Your task to perform on an android device: Empty the shopping cart on walmart.com. Search for "acer nitro" on walmart.com, select the first entry, add it to the cart, then select checkout. Image 0: 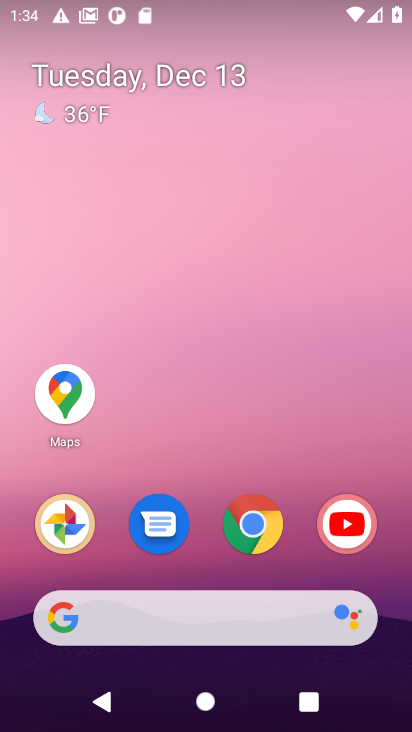
Step 0: click (256, 525)
Your task to perform on an android device: Empty the shopping cart on walmart.com. Search for "acer nitro" on walmart.com, select the first entry, add it to the cart, then select checkout. Image 1: 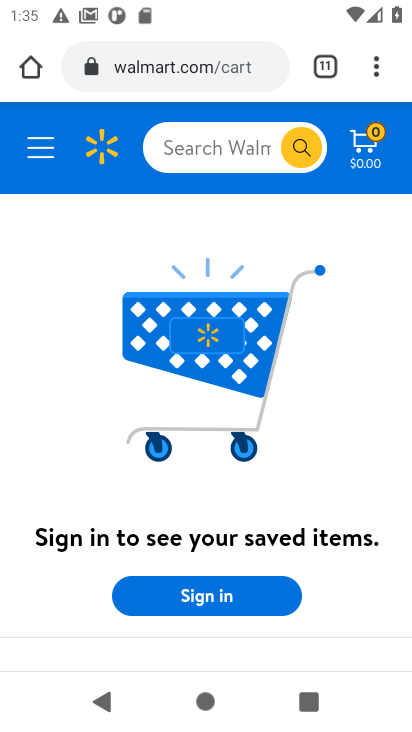
Step 1: click (191, 150)
Your task to perform on an android device: Empty the shopping cart on walmart.com. Search for "acer nitro" on walmart.com, select the first entry, add it to the cart, then select checkout. Image 2: 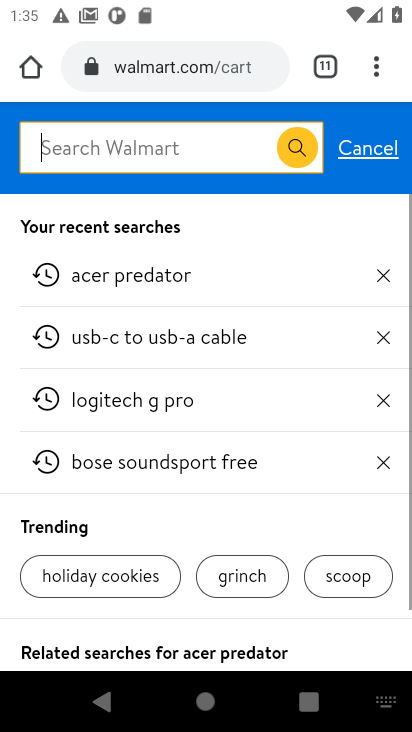
Step 2: type "acer nitro"
Your task to perform on an android device: Empty the shopping cart on walmart.com. Search for "acer nitro" on walmart.com, select the first entry, add it to the cart, then select checkout. Image 3: 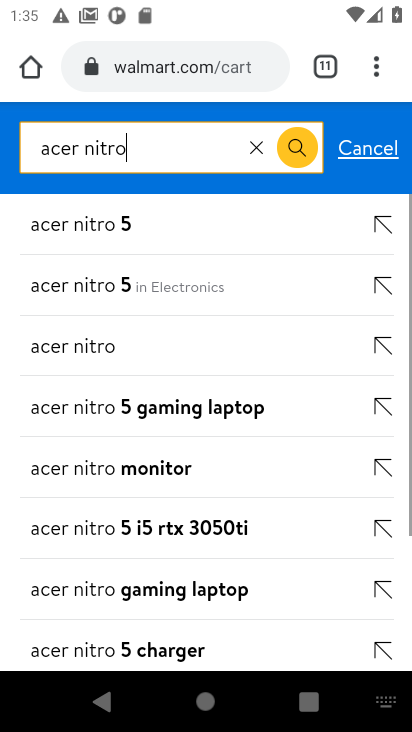
Step 3: click (72, 346)
Your task to perform on an android device: Empty the shopping cart on walmart.com. Search for "acer nitro" on walmart.com, select the first entry, add it to the cart, then select checkout. Image 4: 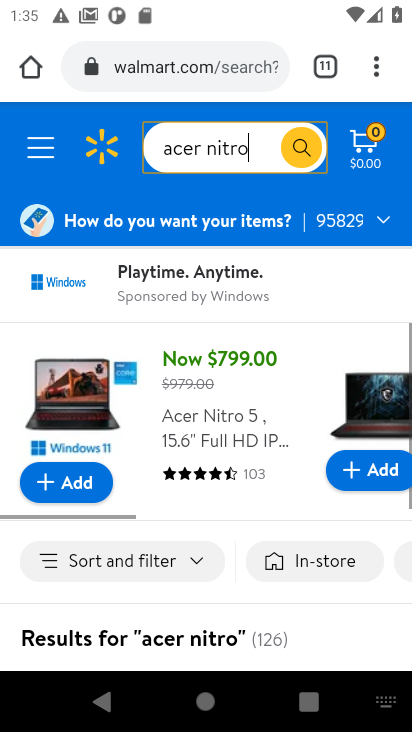
Step 4: drag from (155, 474) to (168, 198)
Your task to perform on an android device: Empty the shopping cart on walmart.com. Search for "acer nitro" on walmart.com, select the first entry, add it to the cart, then select checkout. Image 5: 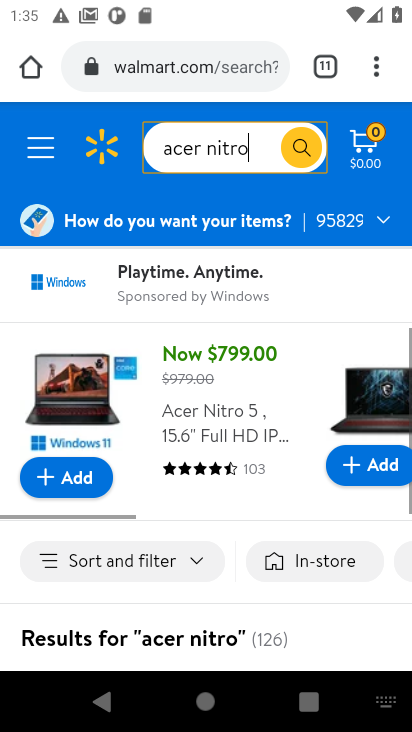
Step 5: drag from (241, 563) to (215, 213)
Your task to perform on an android device: Empty the shopping cart on walmart.com. Search for "acer nitro" on walmart.com, select the first entry, add it to the cart, then select checkout. Image 6: 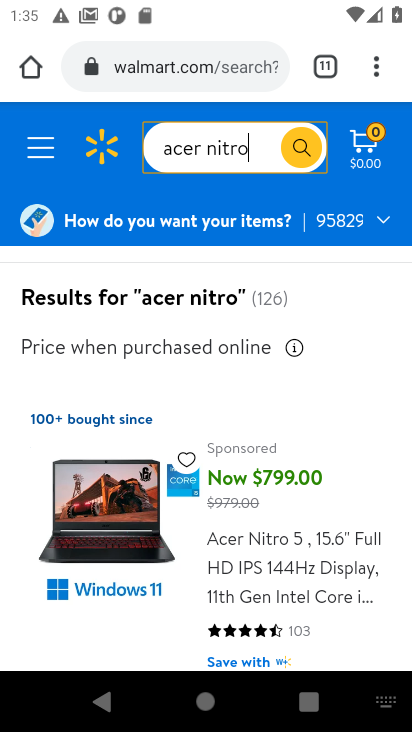
Step 6: drag from (209, 519) to (197, 326)
Your task to perform on an android device: Empty the shopping cart on walmart.com. Search for "acer nitro" on walmart.com, select the first entry, add it to the cart, then select checkout. Image 7: 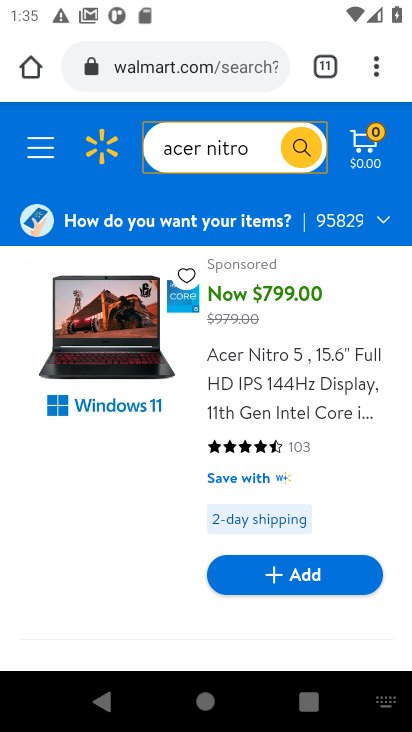
Step 7: click (283, 582)
Your task to perform on an android device: Empty the shopping cart on walmart.com. Search for "acer nitro" on walmart.com, select the first entry, add it to the cart, then select checkout. Image 8: 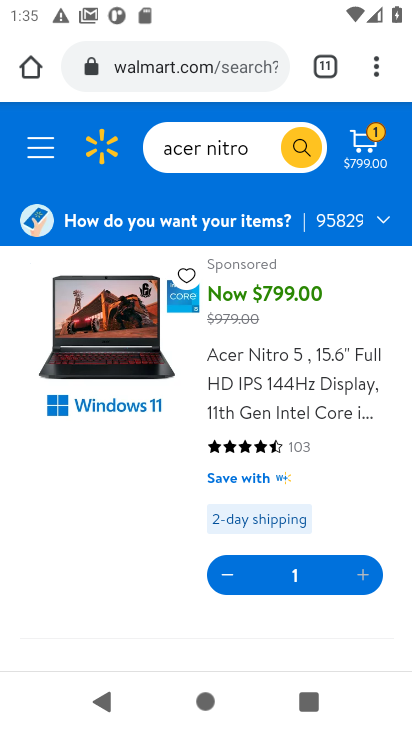
Step 8: click (371, 148)
Your task to perform on an android device: Empty the shopping cart on walmart.com. Search for "acer nitro" on walmart.com, select the first entry, add it to the cart, then select checkout. Image 9: 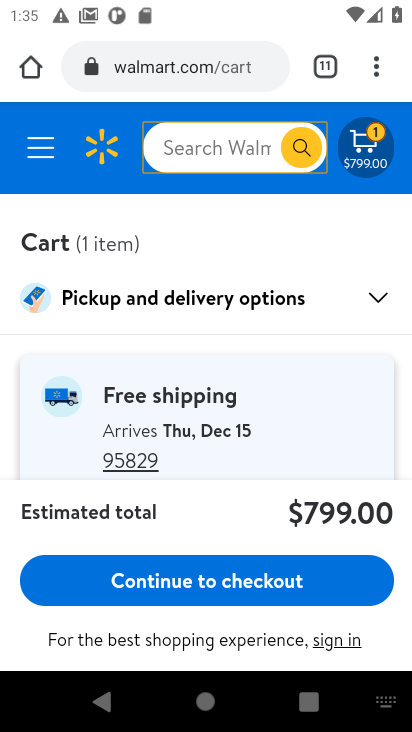
Step 9: click (215, 583)
Your task to perform on an android device: Empty the shopping cart on walmart.com. Search for "acer nitro" on walmart.com, select the first entry, add it to the cart, then select checkout. Image 10: 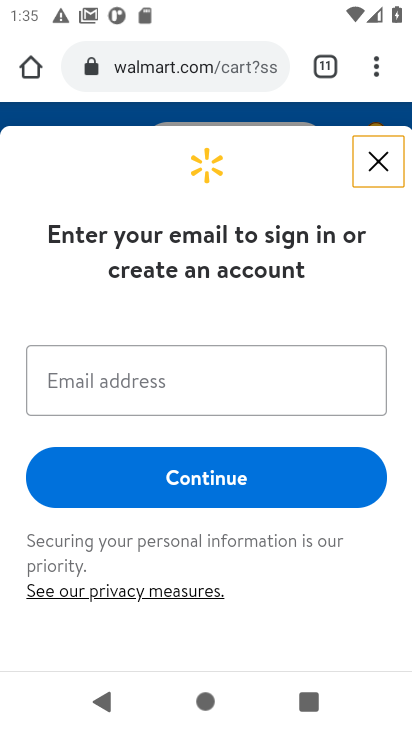
Step 10: task complete